Your task to perform on an android device: install app "Instagram" Image 0: 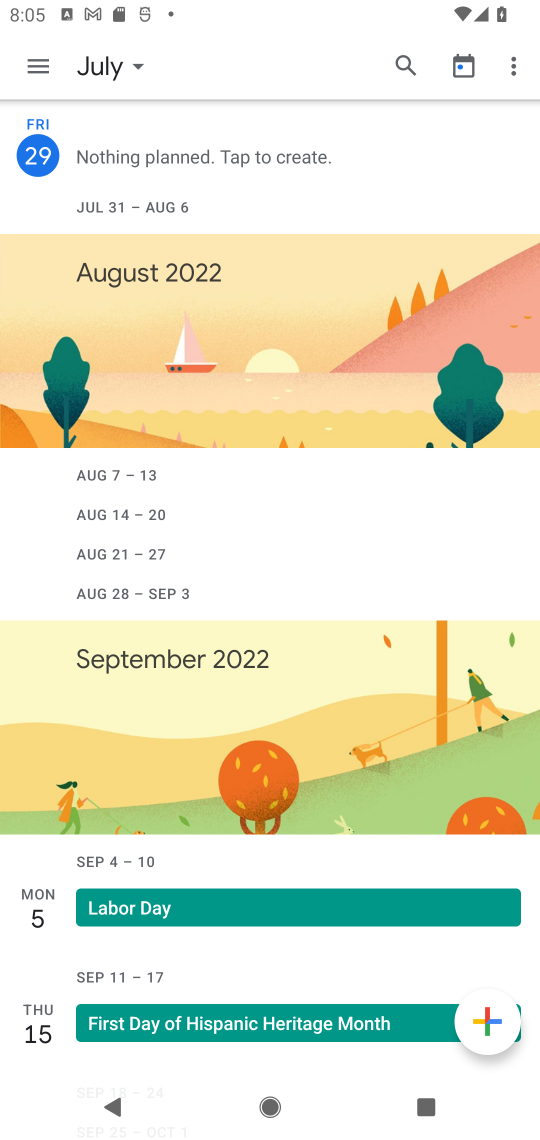
Step 0: press back button
Your task to perform on an android device: install app "Instagram" Image 1: 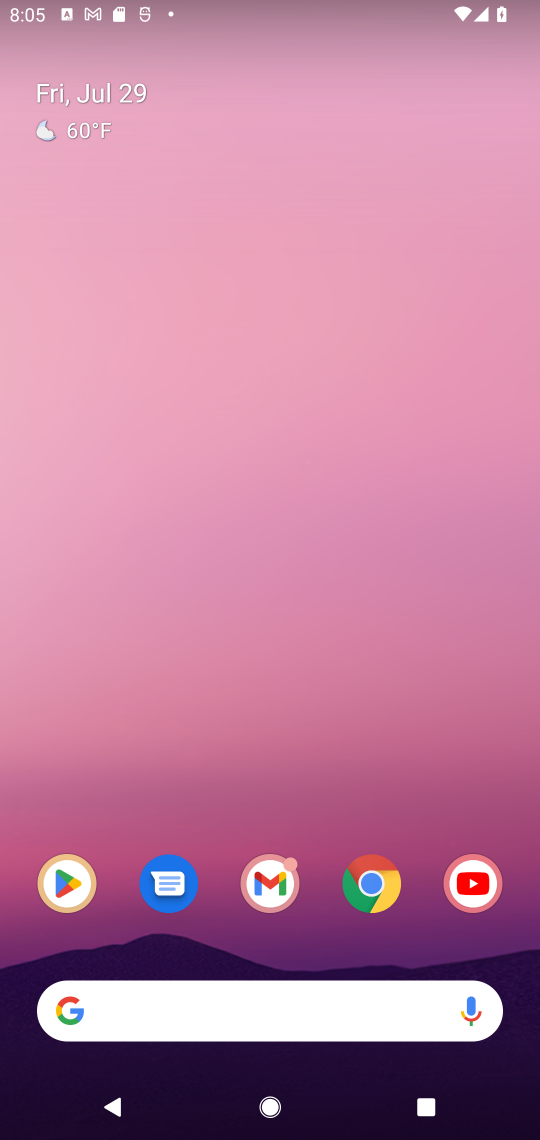
Step 1: click (79, 874)
Your task to perform on an android device: install app "Instagram" Image 2: 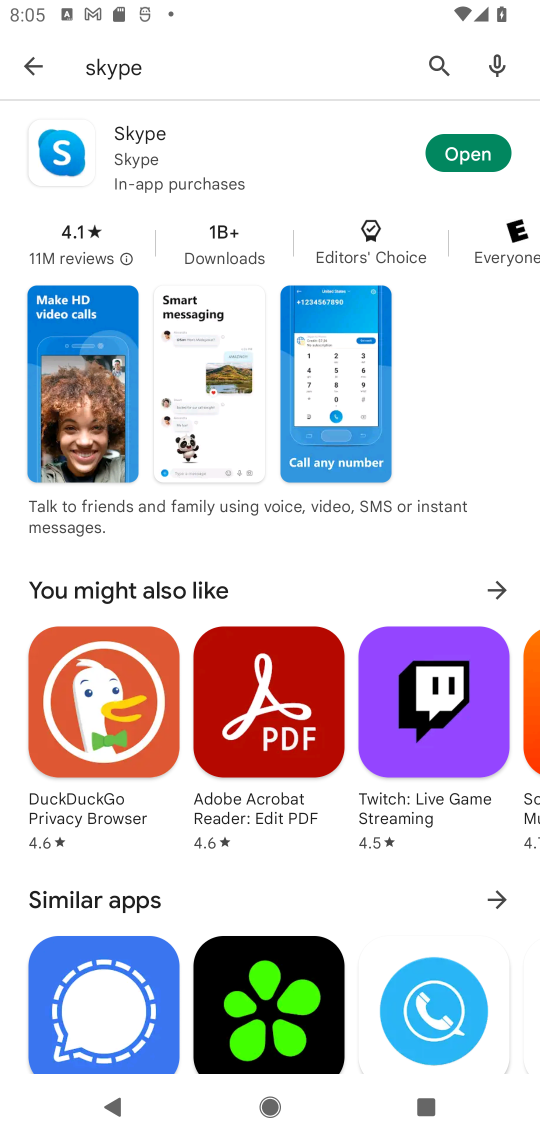
Step 2: click (435, 66)
Your task to perform on an android device: install app "Instagram" Image 3: 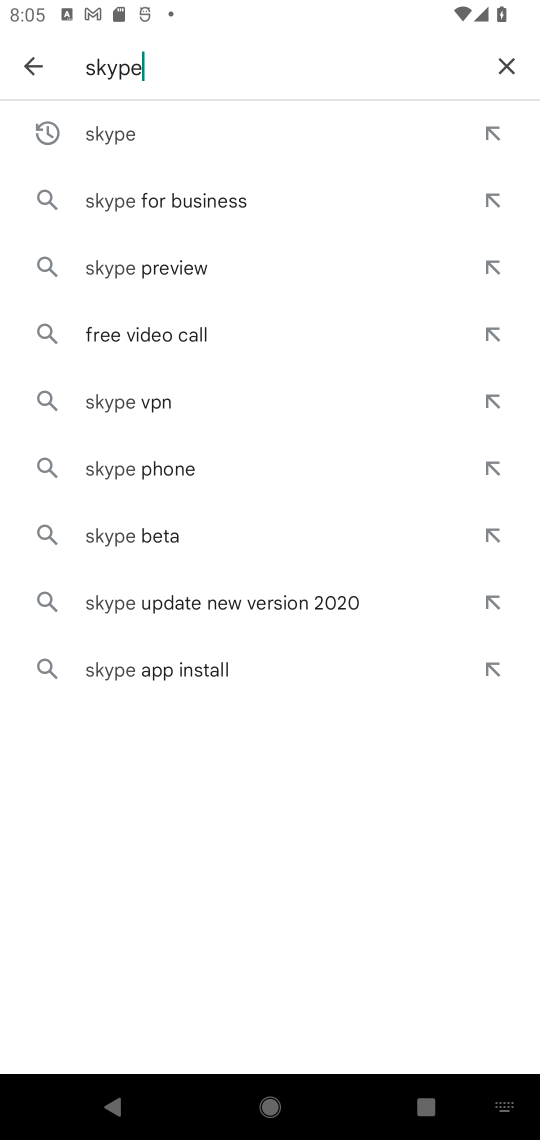
Step 3: click (506, 64)
Your task to perform on an android device: install app "Instagram" Image 4: 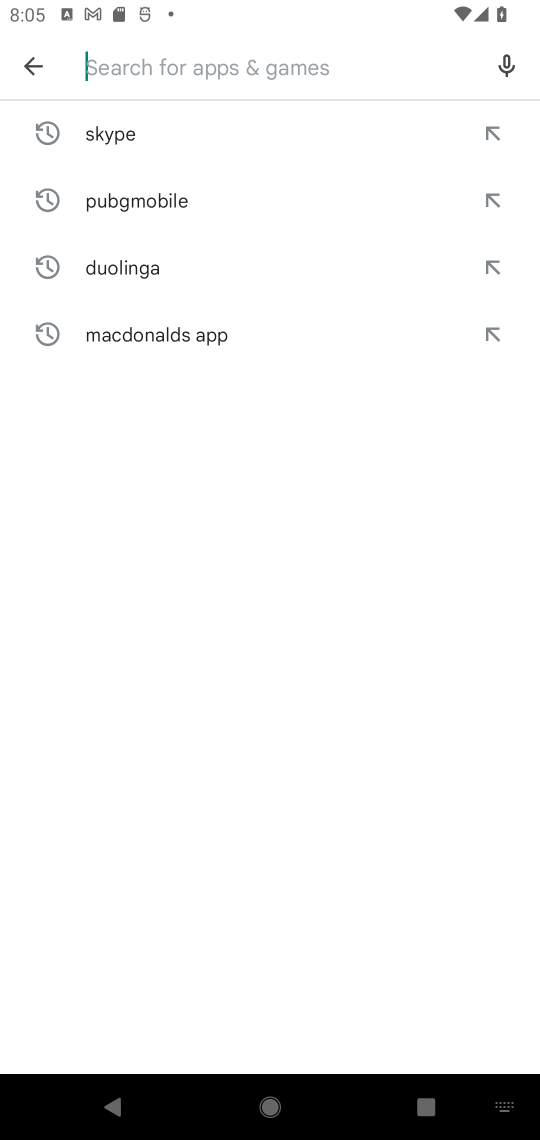
Step 4: click (189, 77)
Your task to perform on an android device: install app "Instagram" Image 5: 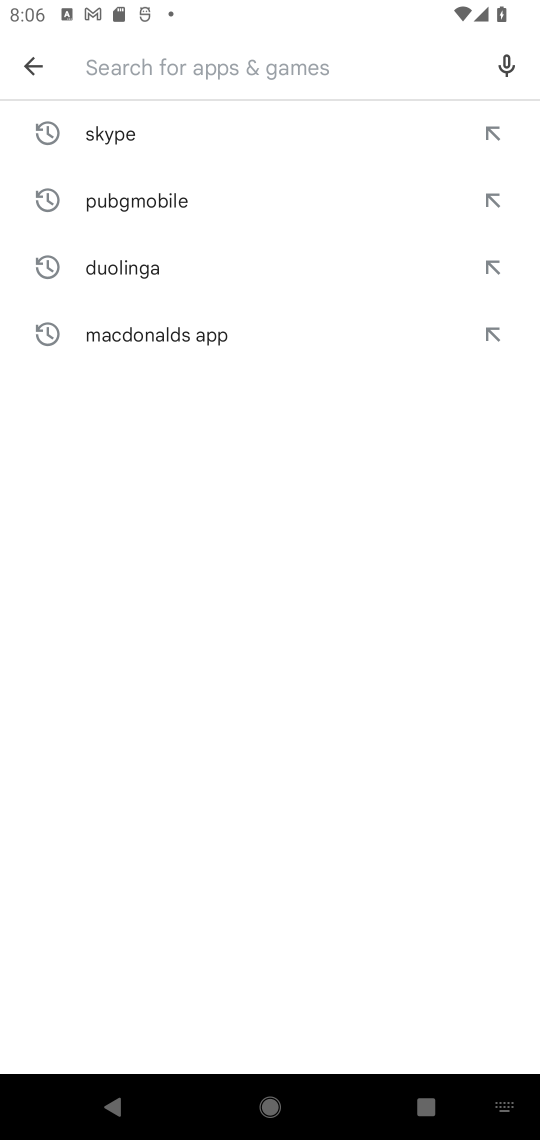
Step 5: type "instagram"
Your task to perform on an android device: install app "Instagram" Image 6: 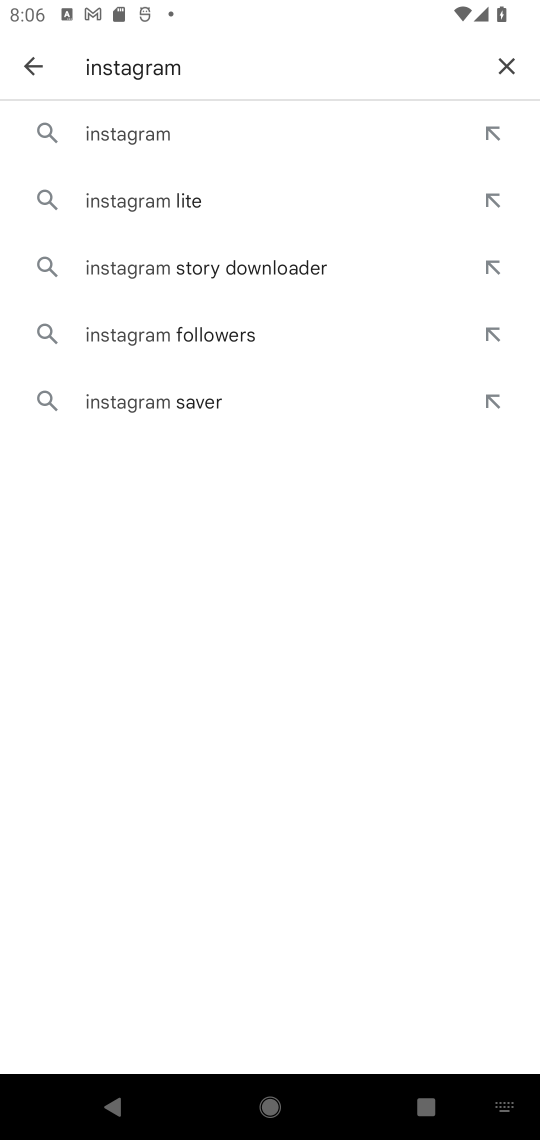
Step 6: click (186, 132)
Your task to perform on an android device: install app "Instagram" Image 7: 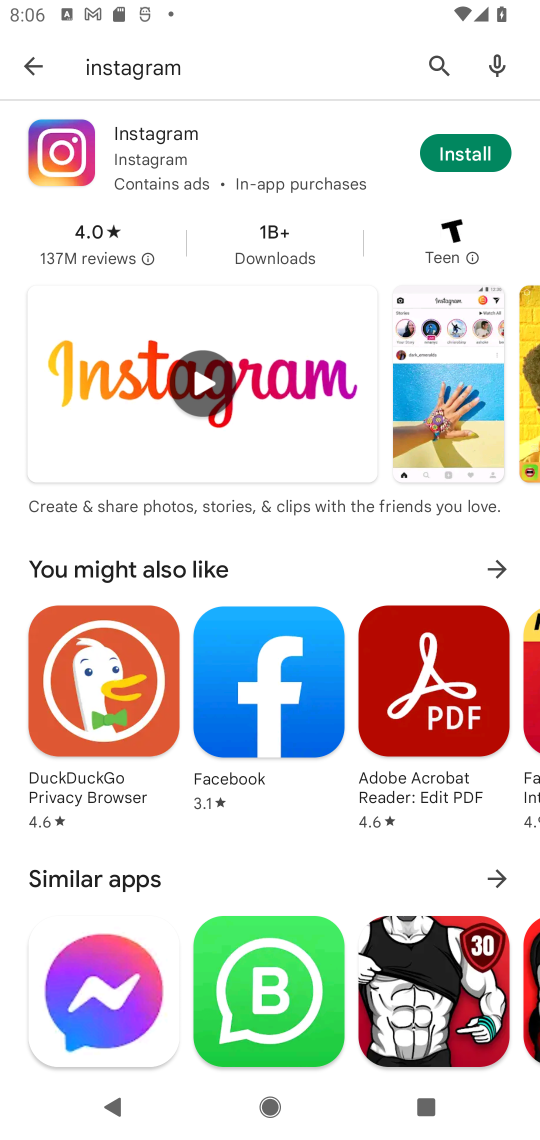
Step 7: click (463, 153)
Your task to perform on an android device: install app "Instagram" Image 8: 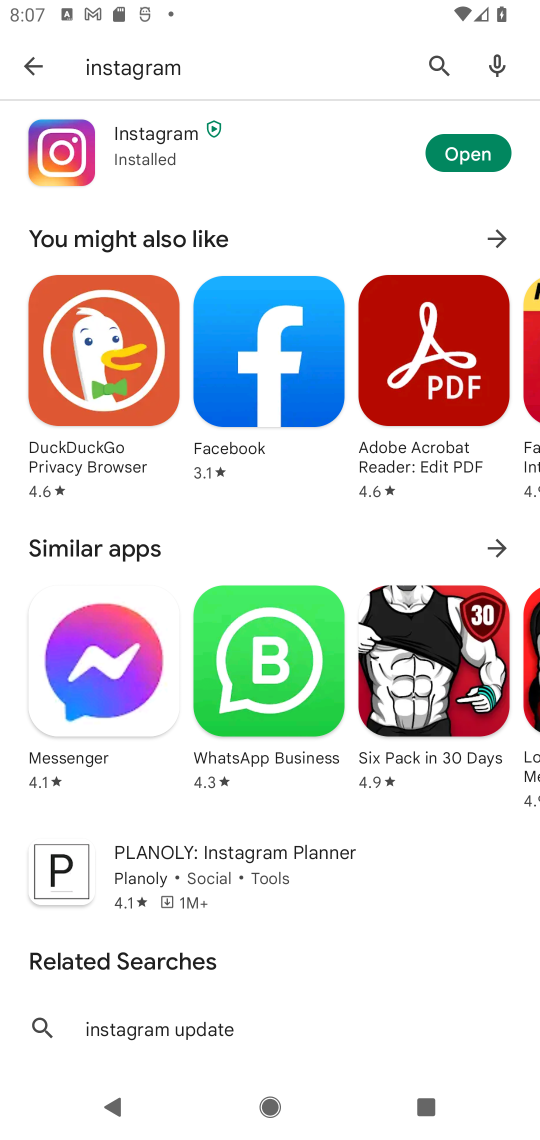
Step 8: click (490, 158)
Your task to perform on an android device: install app "Instagram" Image 9: 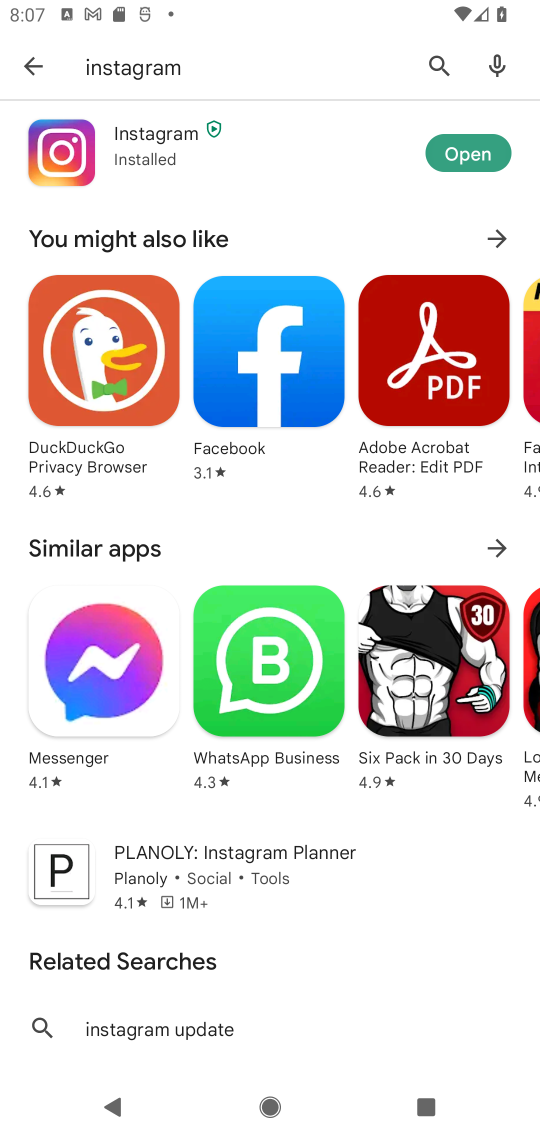
Step 9: task complete